Your task to perform on an android device: change notifications settings Image 0: 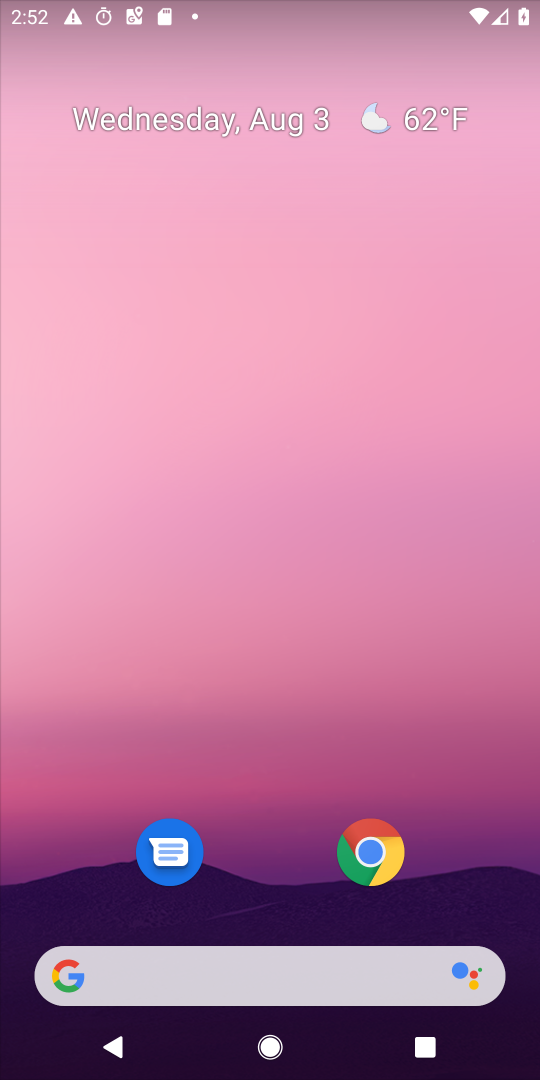
Step 0: drag from (478, 919) to (218, 58)
Your task to perform on an android device: change notifications settings Image 1: 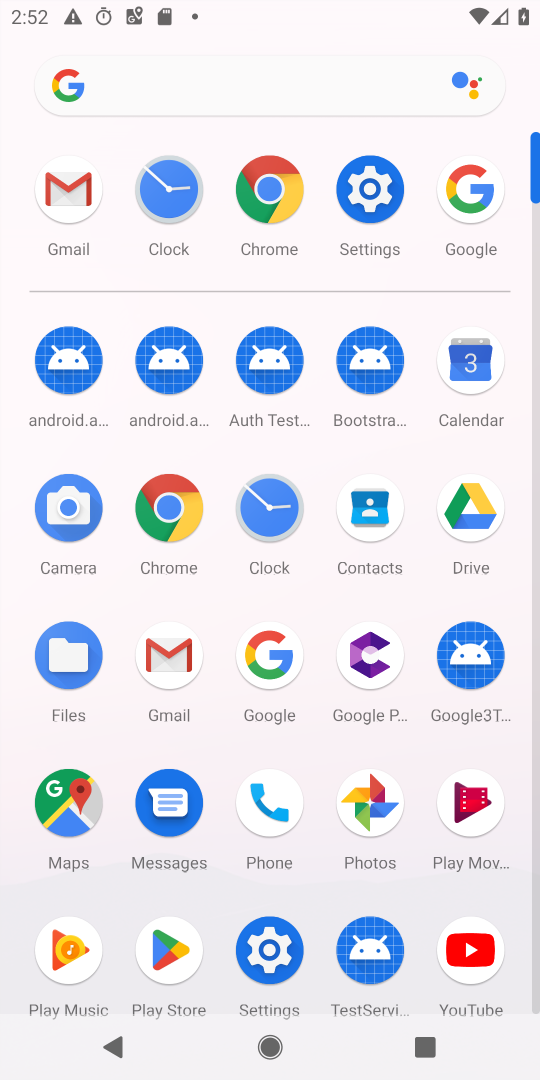
Step 1: click (266, 972)
Your task to perform on an android device: change notifications settings Image 2: 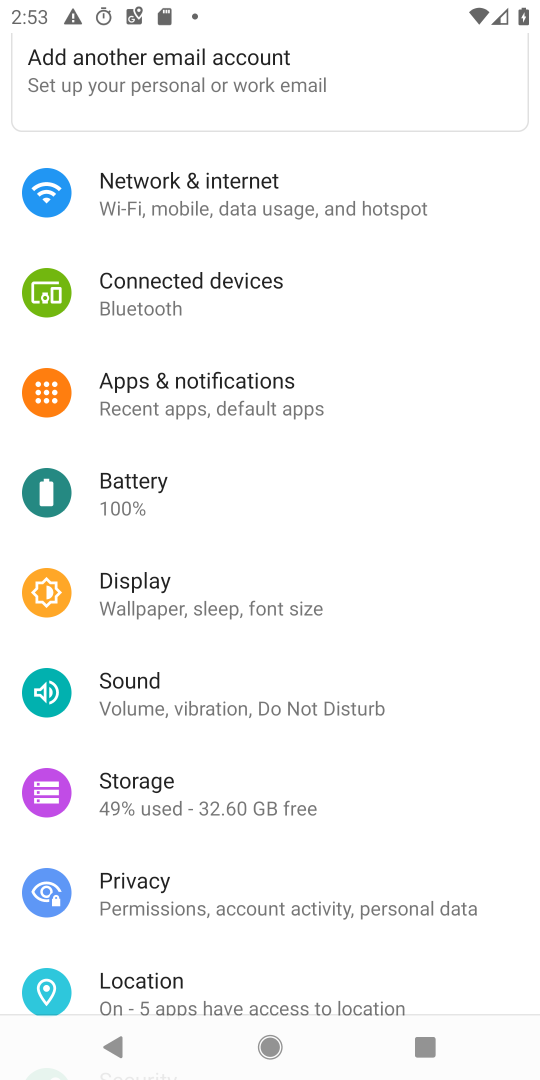
Step 2: click (212, 382)
Your task to perform on an android device: change notifications settings Image 3: 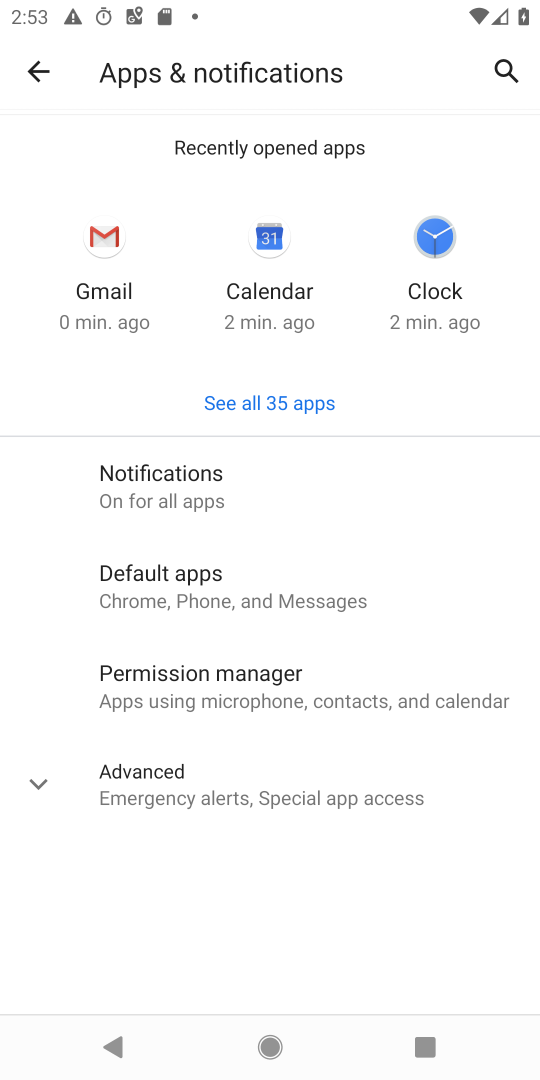
Step 3: click (237, 497)
Your task to perform on an android device: change notifications settings Image 4: 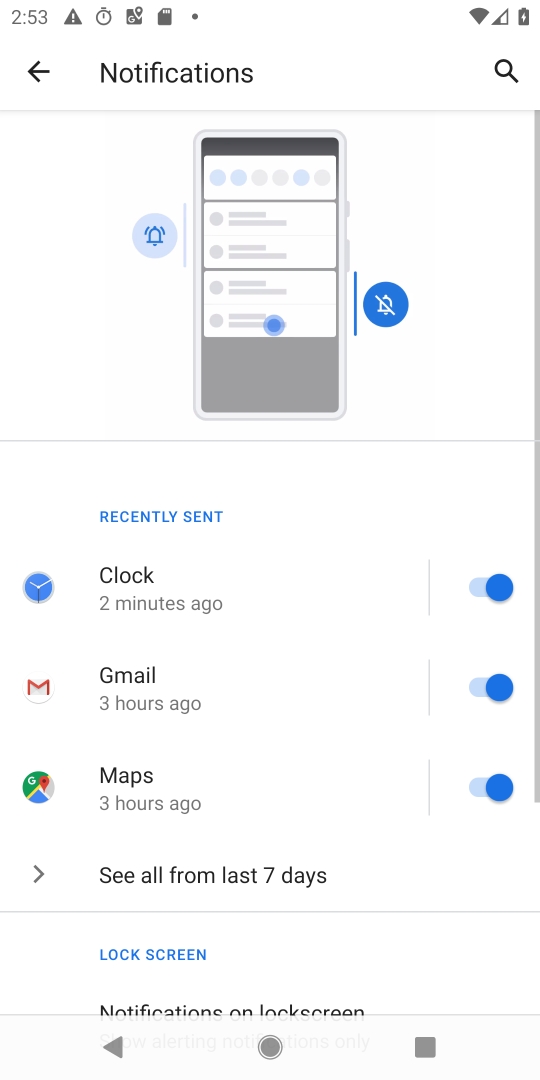
Step 4: task complete